Your task to perform on an android device: turn off translation in the chrome app Image 0: 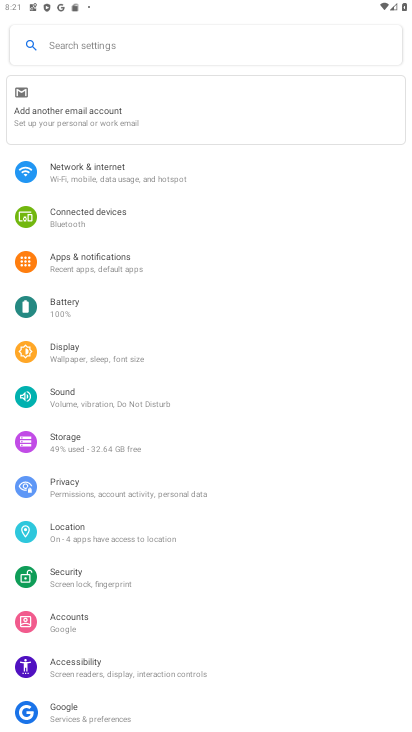
Step 0: press home button
Your task to perform on an android device: turn off translation in the chrome app Image 1: 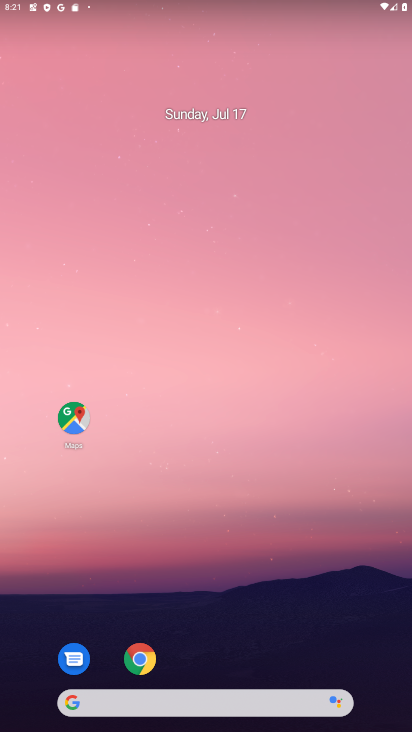
Step 1: click (137, 664)
Your task to perform on an android device: turn off translation in the chrome app Image 2: 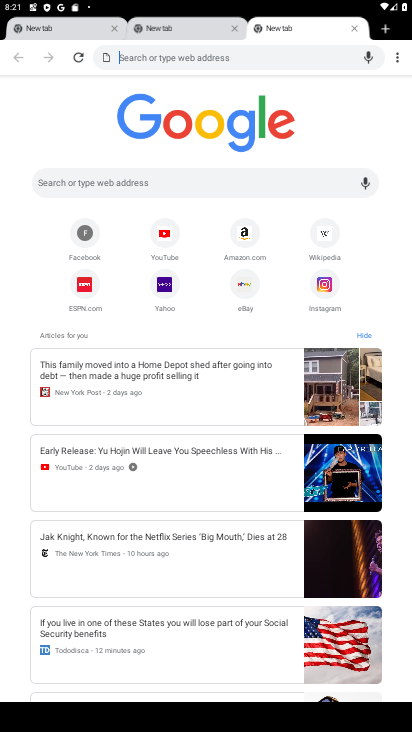
Step 2: click (396, 58)
Your task to perform on an android device: turn off translation in the chrome app Image 3: 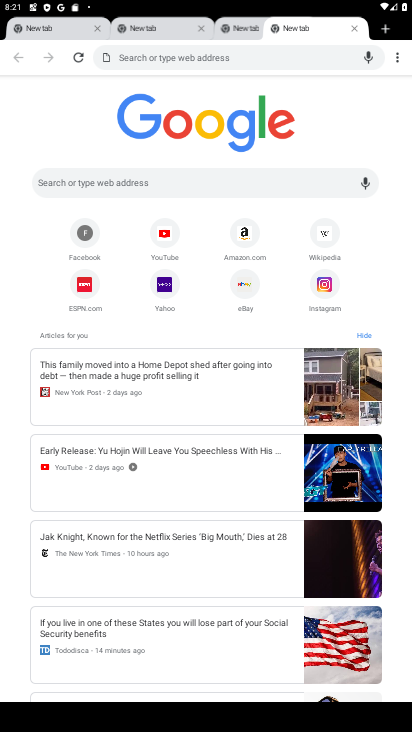
Step 3: click (396, 58)
Your task to perform on an android device: turn off translation in the chrome app Image 4: 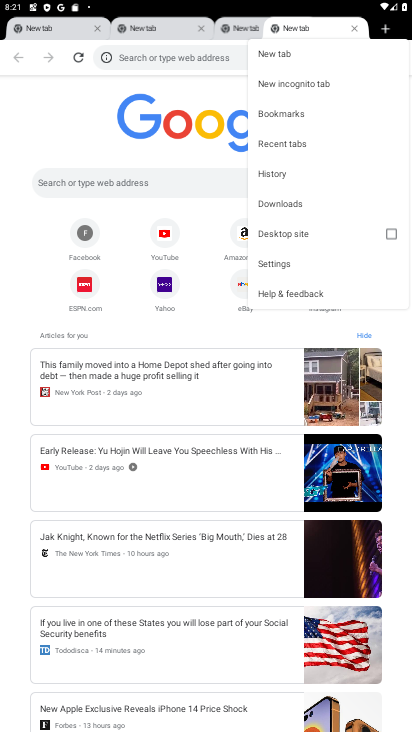
Step 4: click (283, 266)
Your task to perform on an android device: turn off translation in the chrome app Image 5: 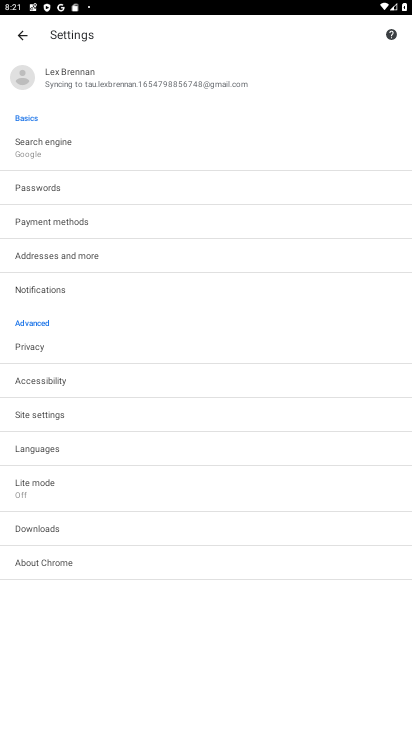
Step 5: click (86, 222)
Your task to perform on an android device: turn off translation in the chrome app Image 6: 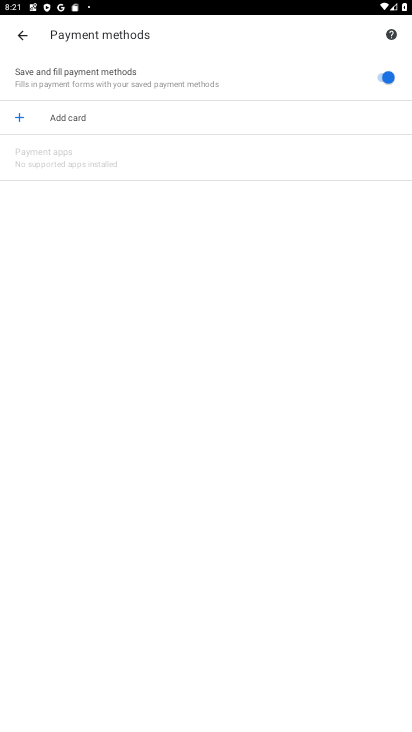
Step 6: click (382, 74)
Your task to perform on an android device: turn off translation in the chrome app Image 7: 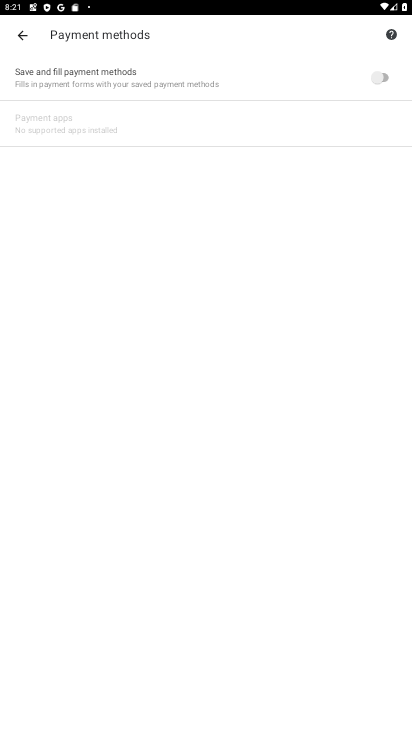
Step 7: task complete